Your task to perform on an android device: Go to Amazon Image 0: 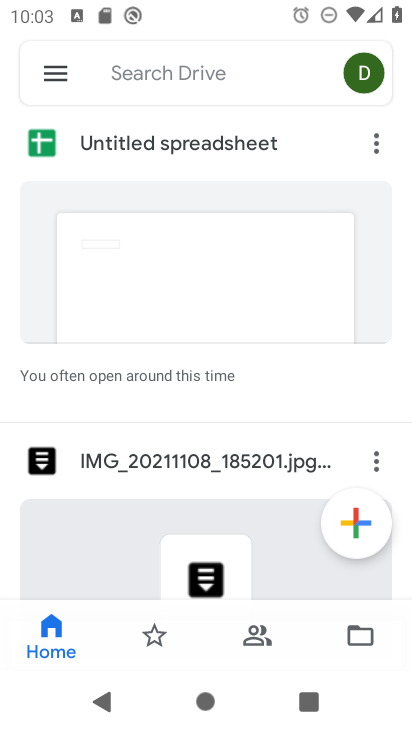
Step 0: press home button
Your task to perform on an android device: Go to Amazon Image 1: 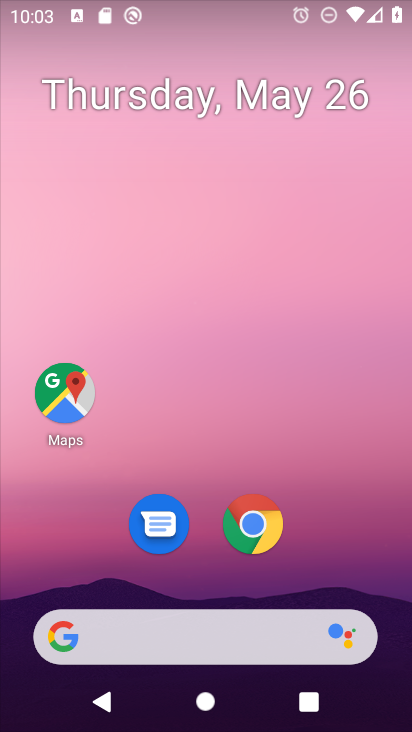
Step 1: click (271, 521)
Your task to perform on an android device: Go to Amazon Image 2: 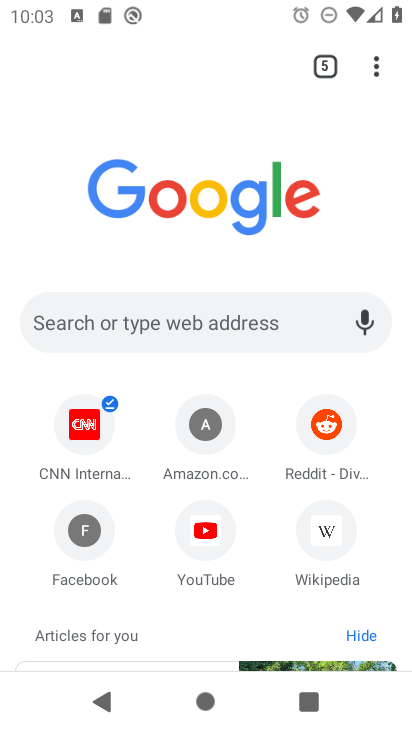
Step 2: click (271, 323)
Your task to perform on an android device: Go to Amazon Image 3: 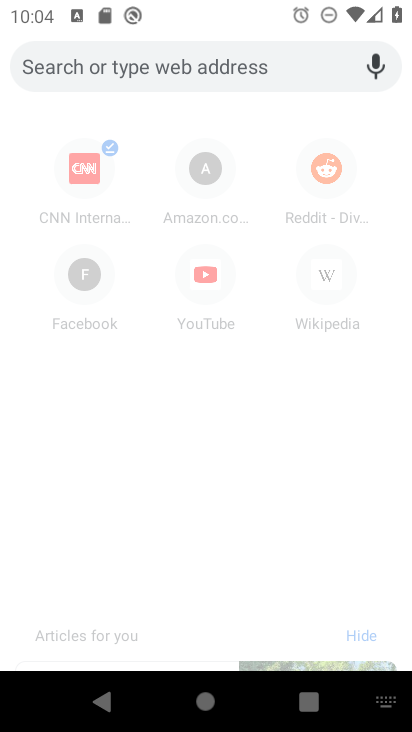
Step 3: type "amazon"
Your task to perform on an android device: Go to Amazon Image 4: 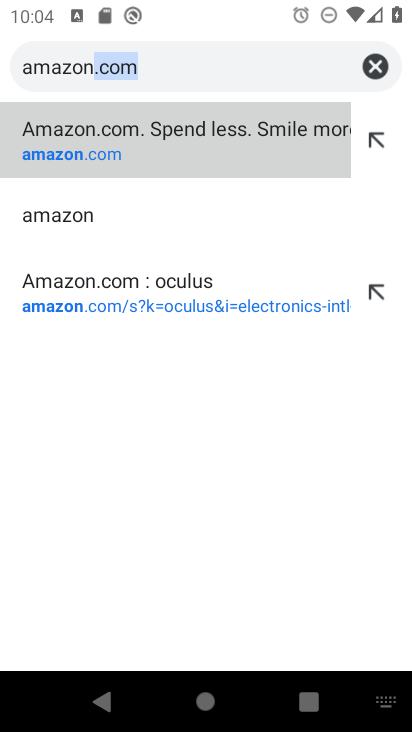
Step 4: click (90, 155)
Your task to perform on an android device: Go to Amazon Image 5: 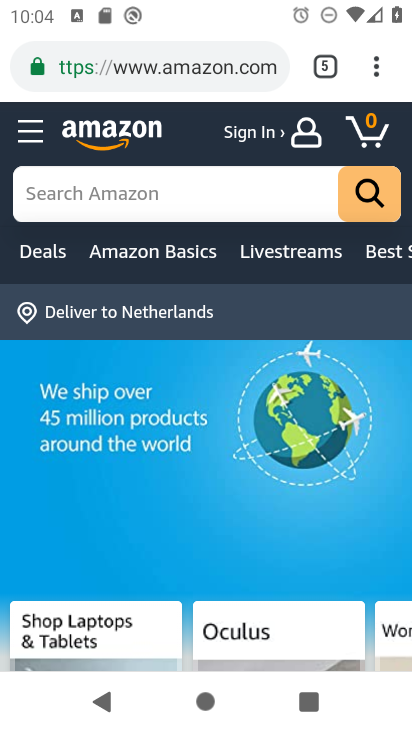
Step 5: task complete